Your task to perform on an android device: Open Google Image 0: 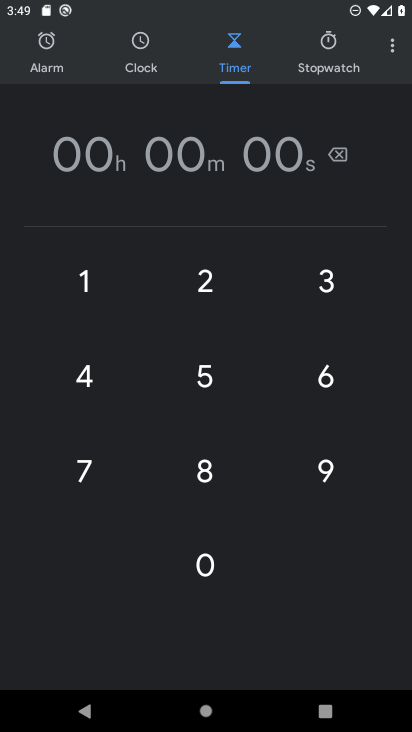
Step 0: press home button
Your task to perform on an android device: Open Google Image 1: 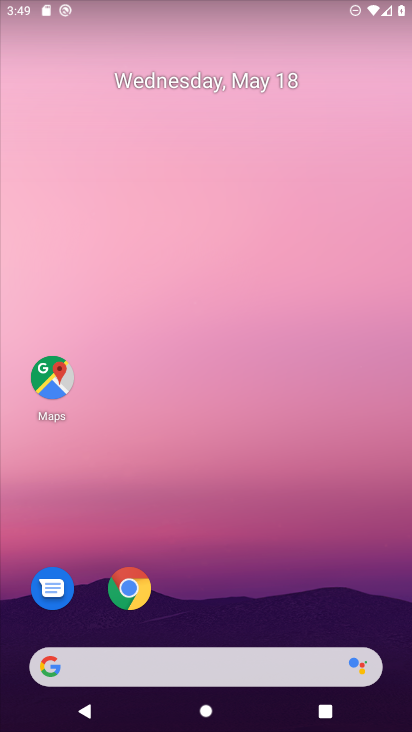
Step 1: click (110, 597)
Your task to perform on an android device: Open Google Image 2: 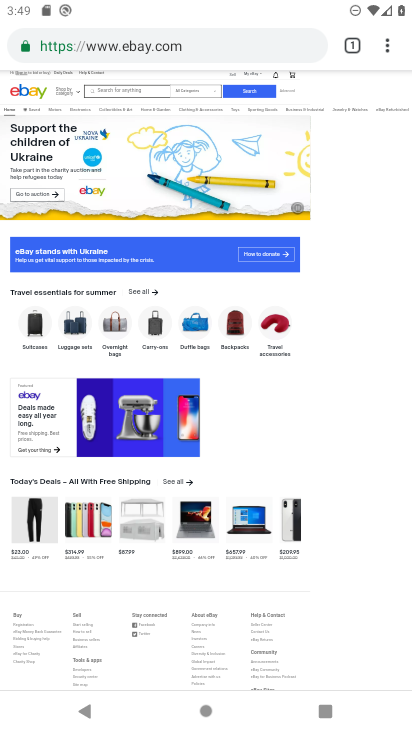
Step 2: click (152, 46)
Your task to perform on an android device: Open Google Image 3: 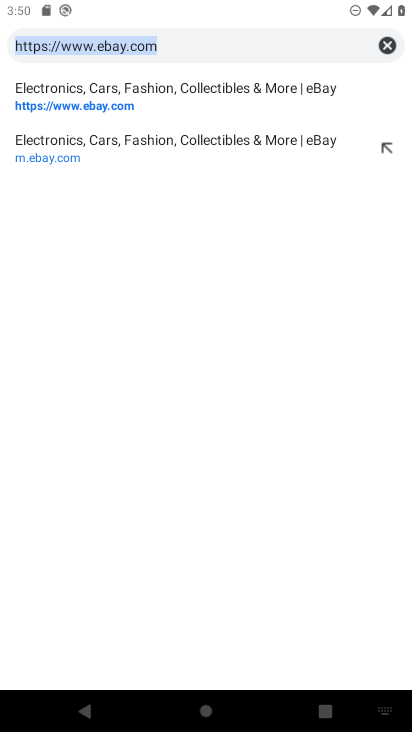
Step 3: type "google.com"
Your task to perform on an android device: Open Google Image 4: 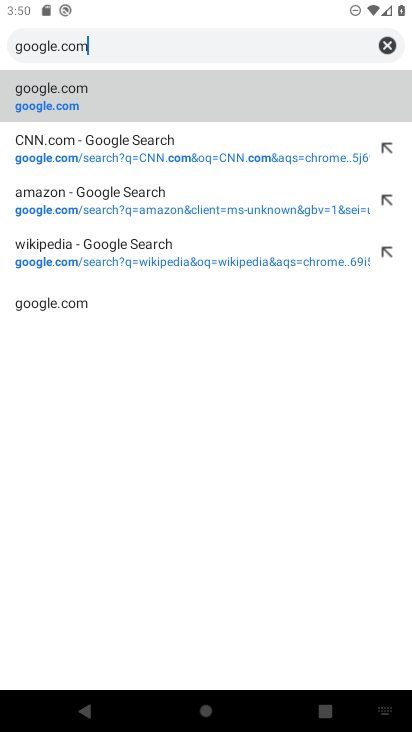
Step 4: click (133, 86)
Your task to perform on an android device: Open Google Image 5: 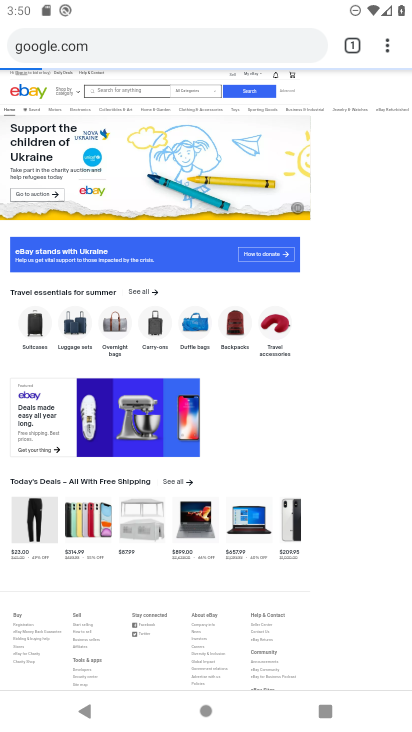
Step 5: task complete